Your task to perform on an android device: Search for vegetarian restaurants on Maps Image 0: 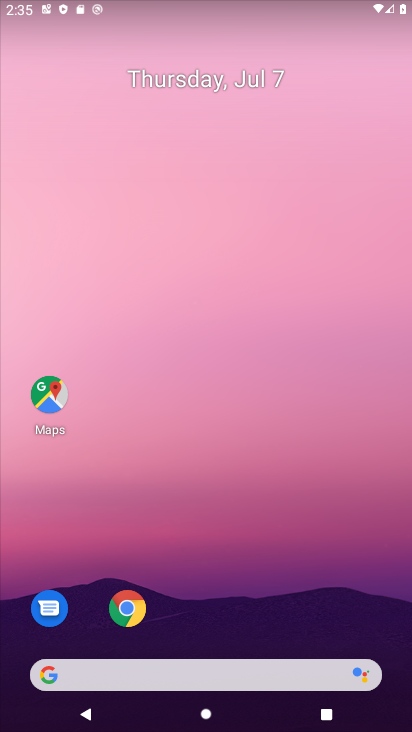
Step 0: click (47, 391)
Your task to perform on an android device: Search for vegetarian restaurants on Maps Image 1: 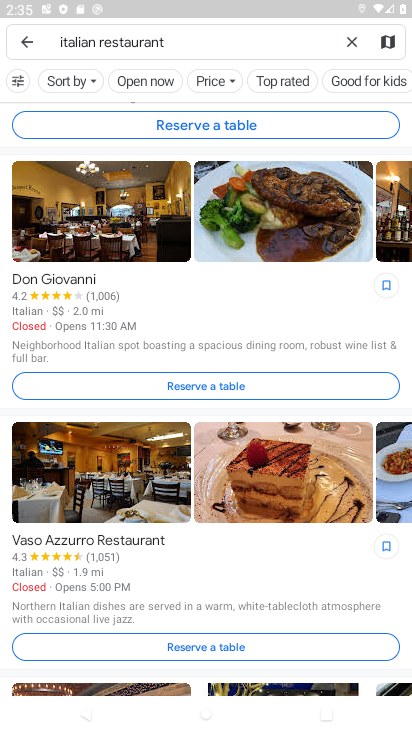
Step 1: click (350, 40)
Your task to perform on an android device: Search for vegetarian restaurants on Maps Image 2: 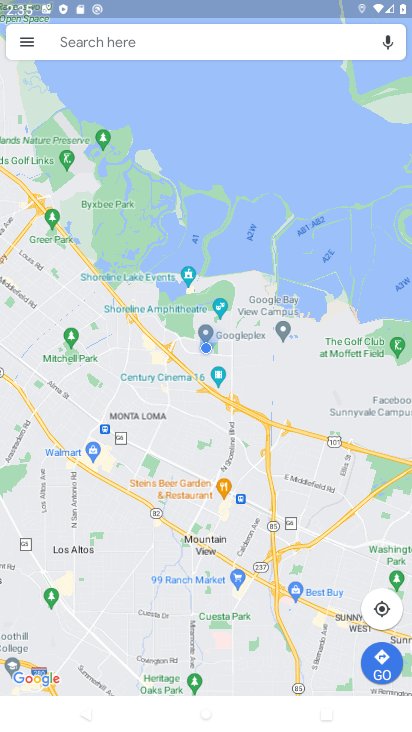
Step 2: click (196, 42)
Your task to perform on an android device: Search for vegetarian restaurants on Maps Image 3: 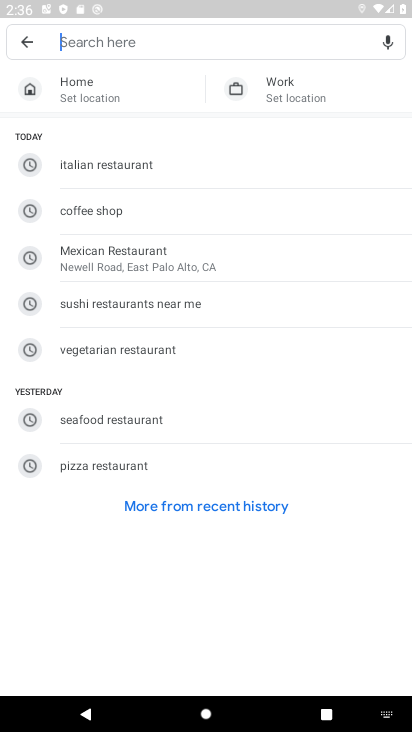
Step 3: type "Vegetarian restaurants"
Your task to perform on an android device: Search for vegetarian restaurants on Maps Image 4: 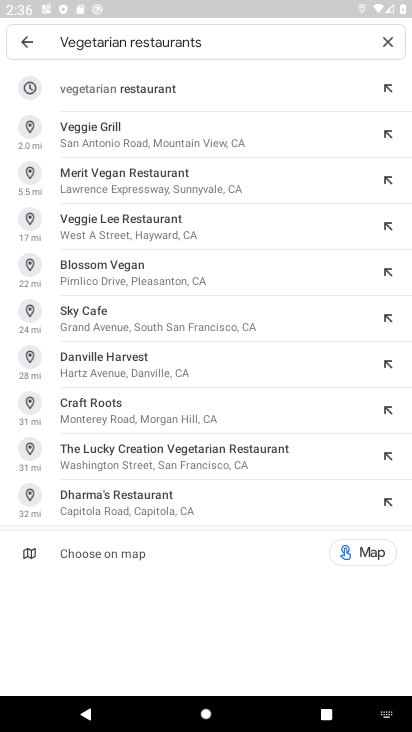
Step 4: click (155, 90)
Your task to perform on an android device: Search for vegetarian restaurants on Maps Image 5: 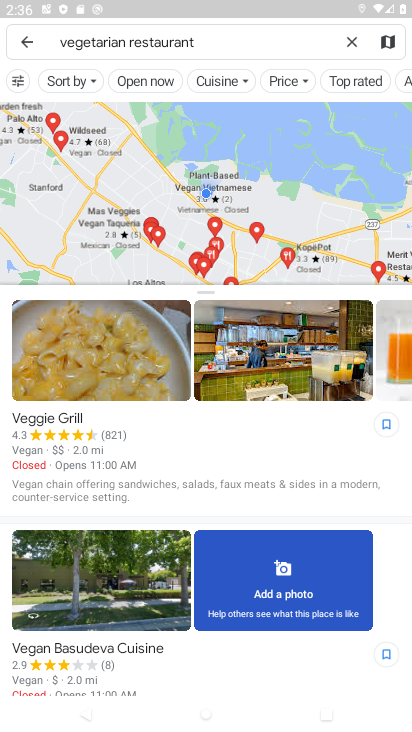
Step 5: task complete